Your task to perform on an android device: Open the calendar and show me this week's events Image 0: 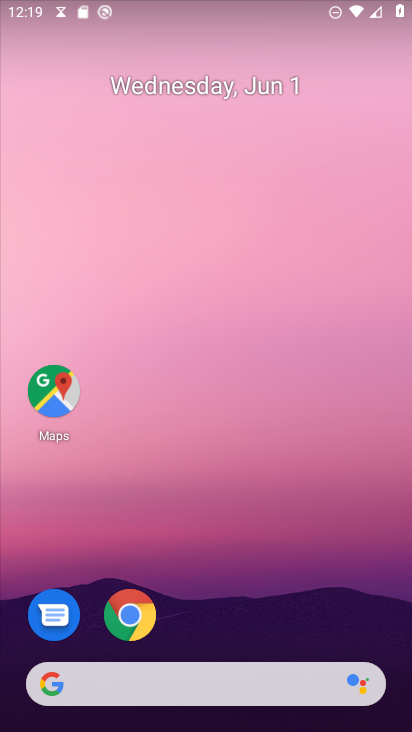
Step 0: drag from (256, 680) to (266, 40)
Your task to perform on an android device: Open the calendar and show me this week's events Image 1: 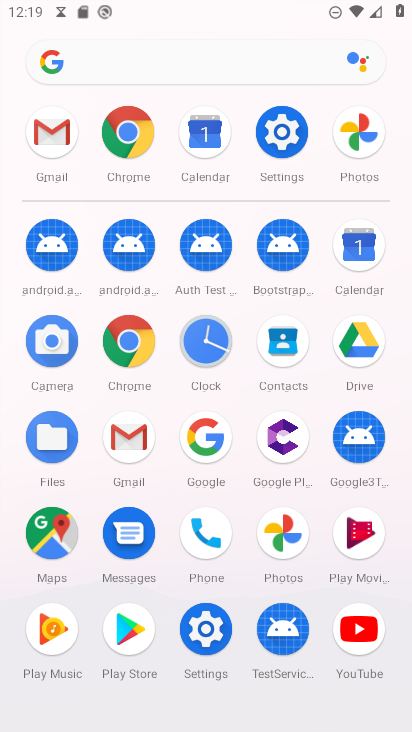
Step 1: click (359, 246)
Your task to perform on an android device: Open the calendar and show me this week's events Image 2: 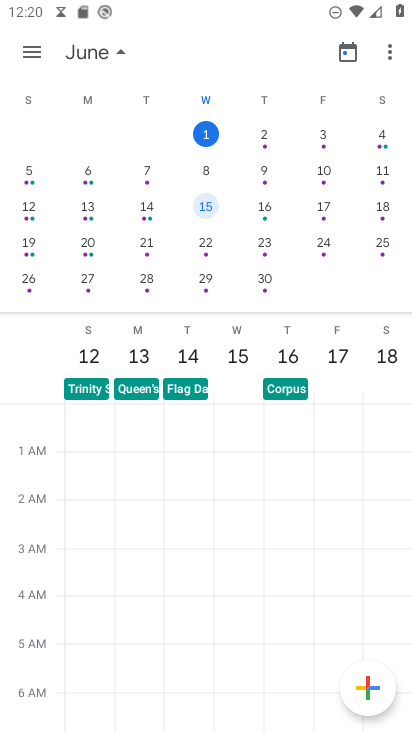
Step 2: click (380, 138)
Your task to perform on an android device: Open the calendar and show me this week's events Image 3: 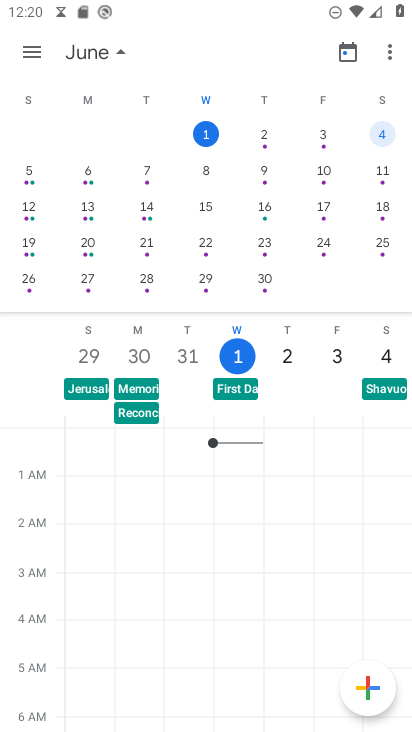
Step 3: task complete